Your task to perform on an android device: change the clock display to digital Image 0: 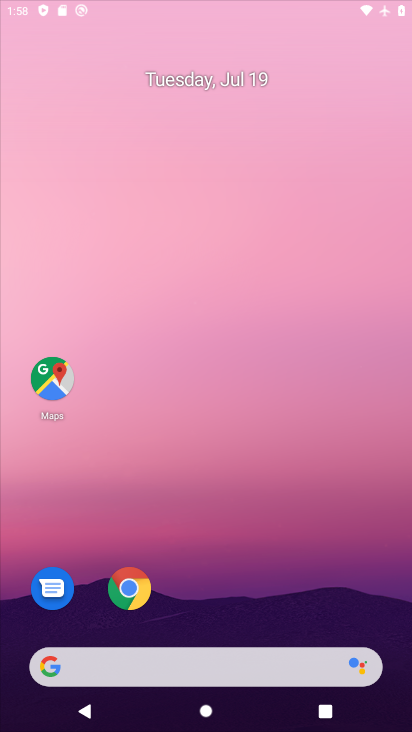
Step 0: press home button
Your task to perform on an android device: change the clock display to digital Image 1: 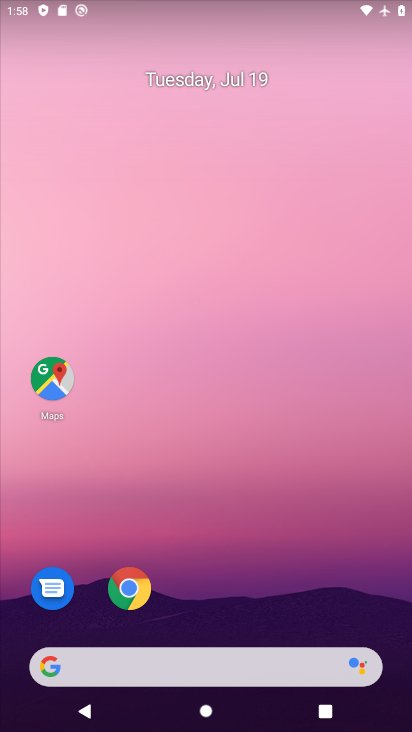
Step 1: drag from (220, 635) to (217, 57)
Your task to perform on an android device: change the clock display to digital Image 2: 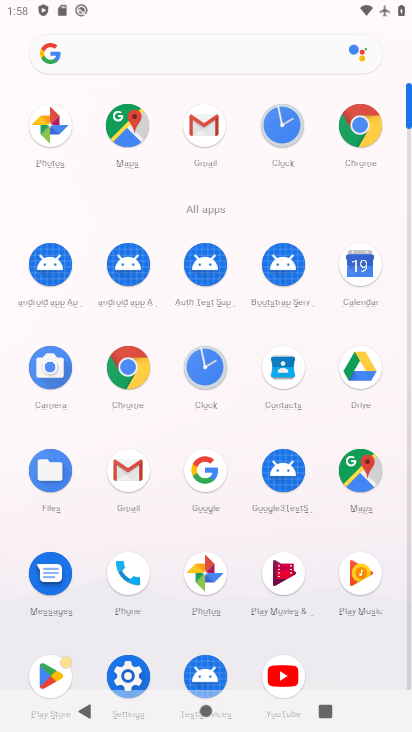
Step 2: click (291, 139)
Your task to perform on an android device: change the clock display to digital Image 3: 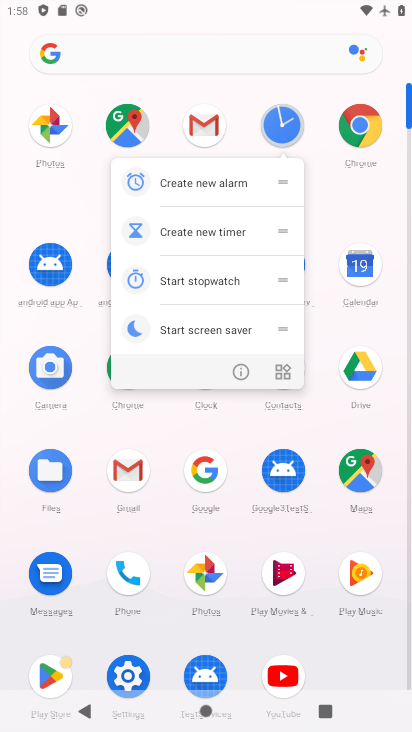
Step 3: click (289, 129)
Your task to perform on an android device: change the clock display to digital Image 4: 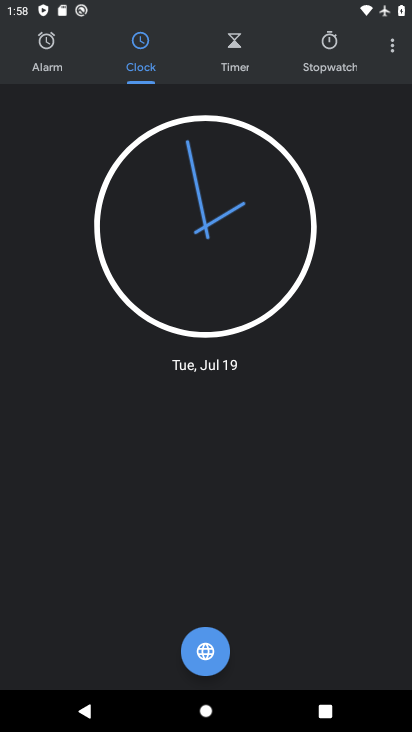
Step 4: click (395, 47)
Your task to perform on an android device: change the clock display to digital Image 5: 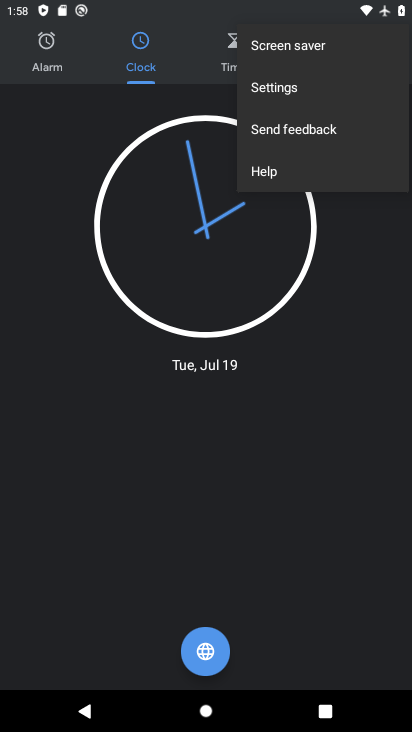
Step 5: click (267, 96)
Your task to perform on an android device: change the clock display to digital Image 6: 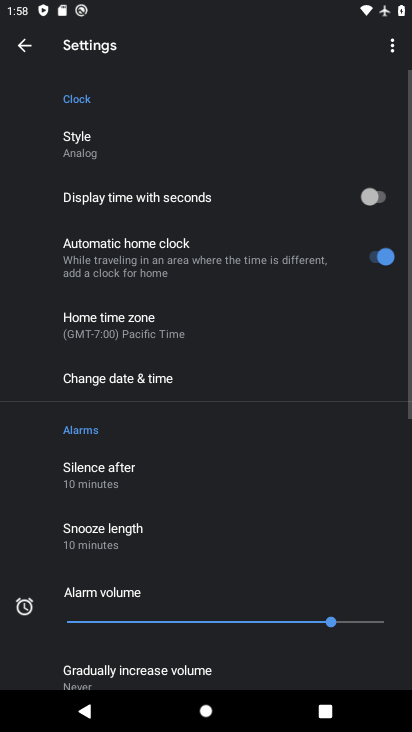
Step 6: click (90, 153)
Your task to perform on an android device: change the clock display to digital Image 7: 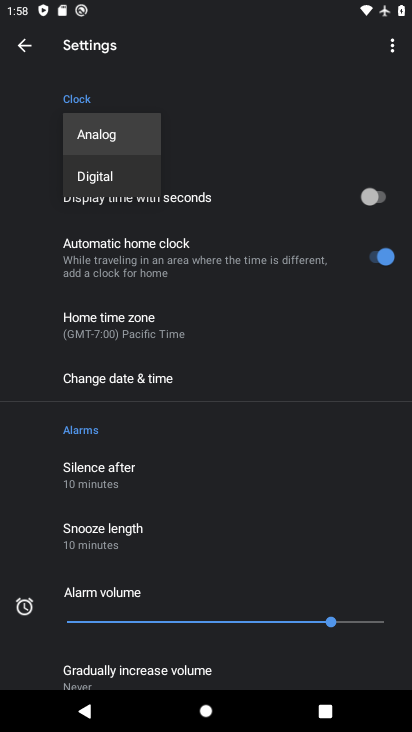
Step 7: click (102, 177)
Your task to perform on an android device: change the clock display to digital Image 8: 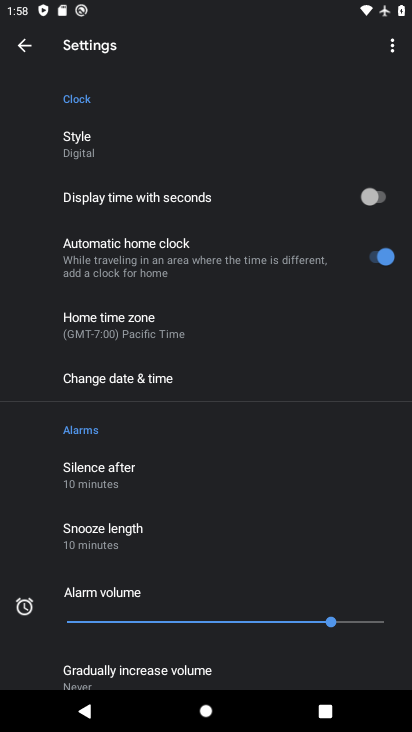
Step 8: task complete